Your task to perform on an android device: toggle notification dots Image 0: 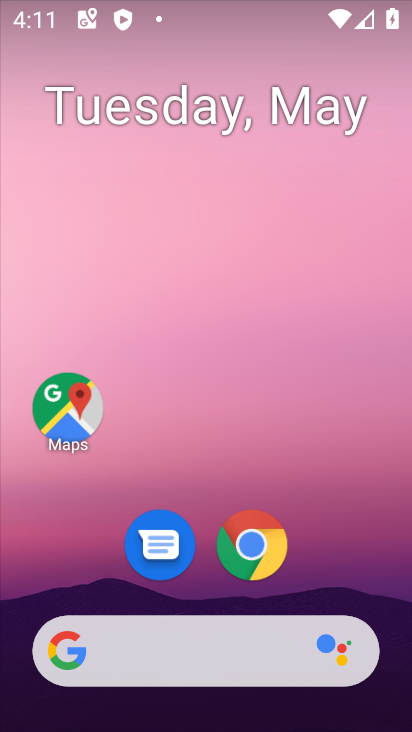
Step 0: drag from (329, 567) to (268, 160)
Your task to perform on an android device: toggle notification dots Image 1: 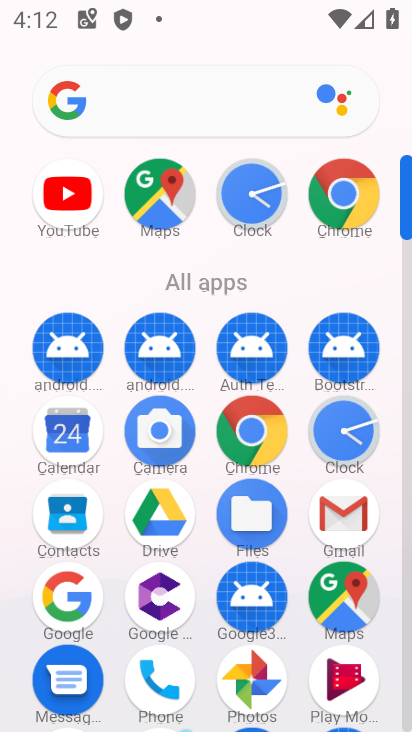
Step 1: drag from (297, 557) to (307, 286)
Your task to perform on an android device: toggle notification dots Image 2: 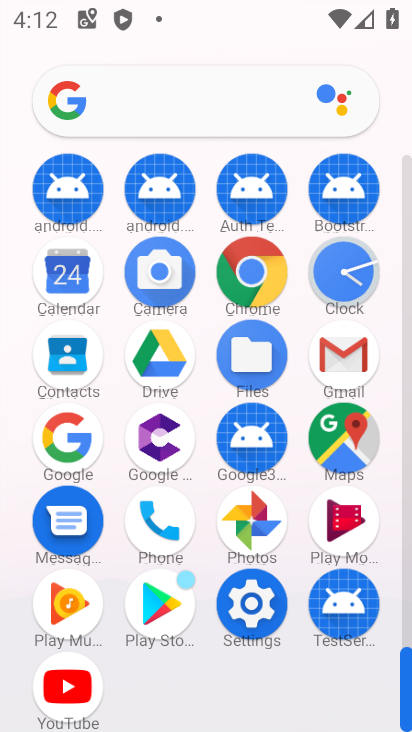
Step 2: click (251, 600)
Your task to perform on an android device: toggle notification dots Image 3: 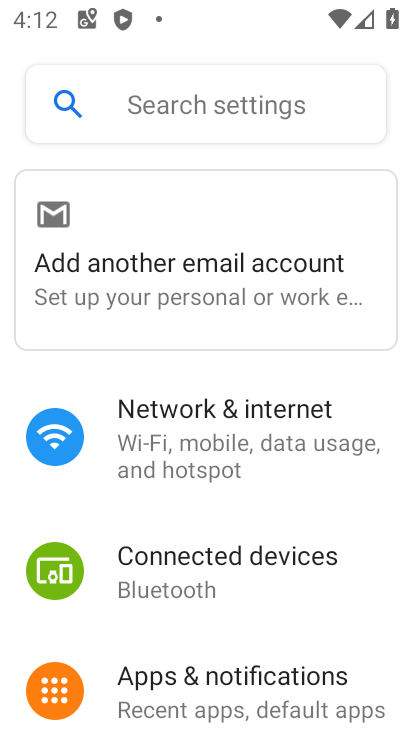
Step 3: click (231, 679)
Your task to perform on an android device: toggle notification dots Image 4: 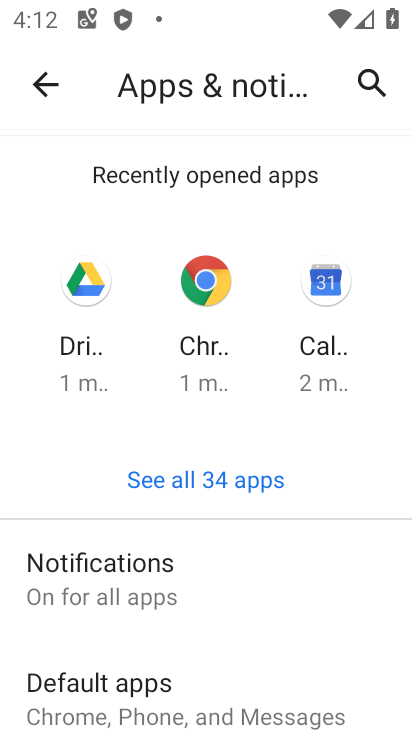
Step 4: click (118, 563)
Your task to perform on an android device: toggle notification dots Image 5: 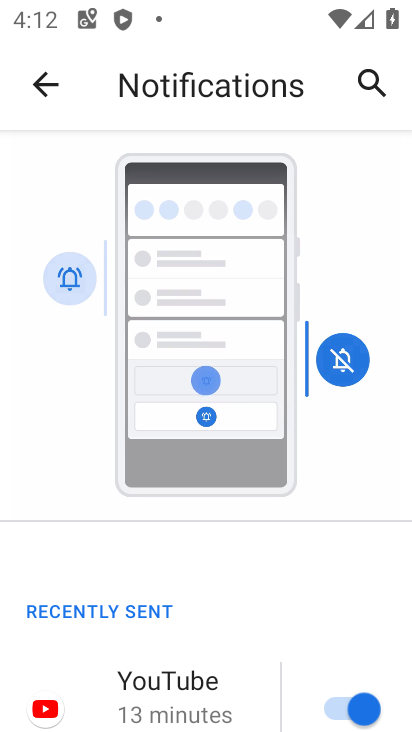
Step 5: drag from (210, 599) to (219, 332)
Your task to perform on an android device: toggle notification dots Image 6: 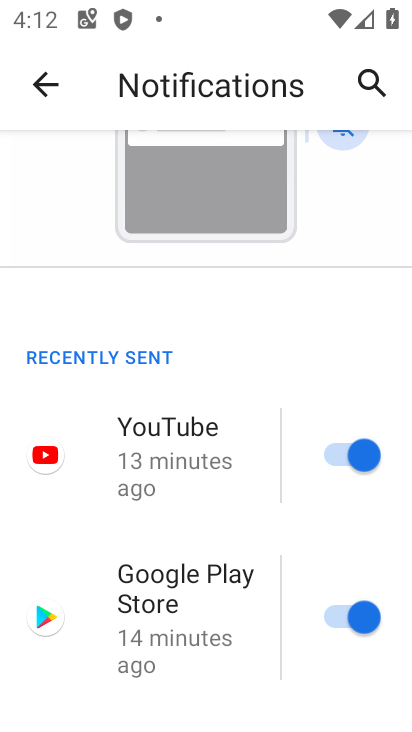
Step 6: drag from (188, 516) to (256, 317)
Your task to perform on an android device: toggle notification dots Image 7: 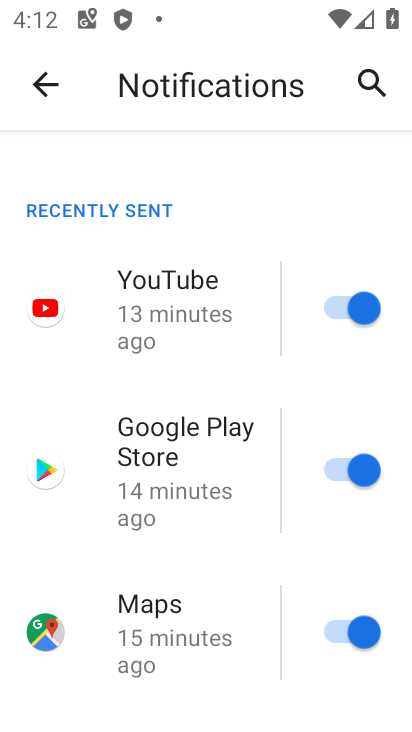
Step 7: drag from (157, 556) to (232, 348)
Your task to perform on an android device: toggle notification dots Image 8: 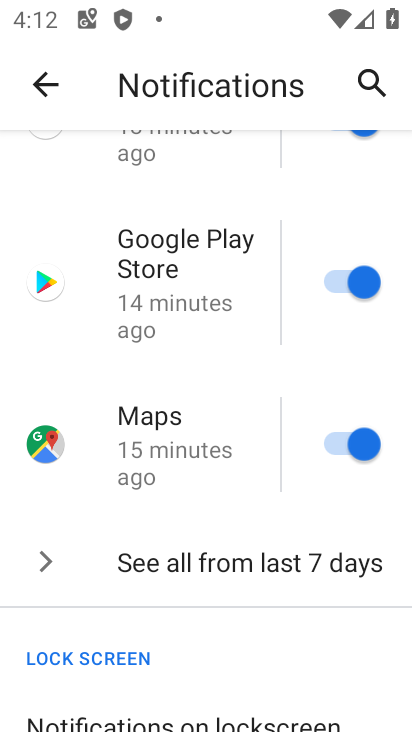
Step 8: drag from (165, 526) to (236, 332)
Your task to perform on an android device: toggle notification dots Image 9: 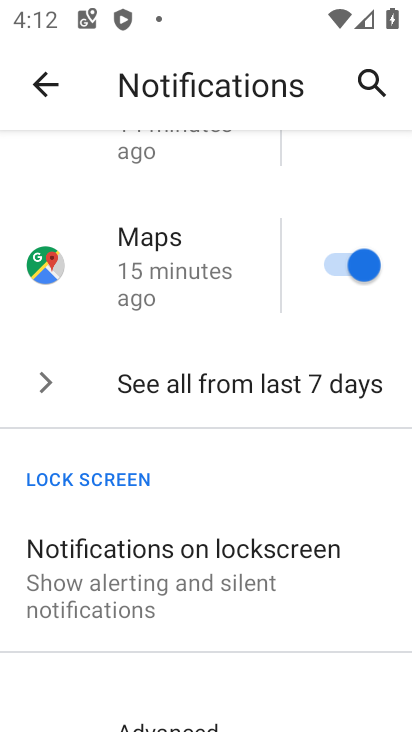
Step 9: drag from (183, 510) to (265, 336)
Your task to perform on an android device: toggle notification dots Image 10: 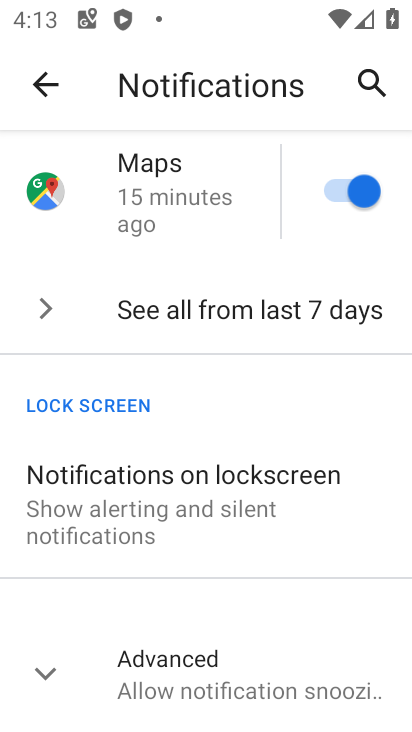
Step 10: click (221, 691)
Your task to perform on an android device: toggle notification dots Image 11: 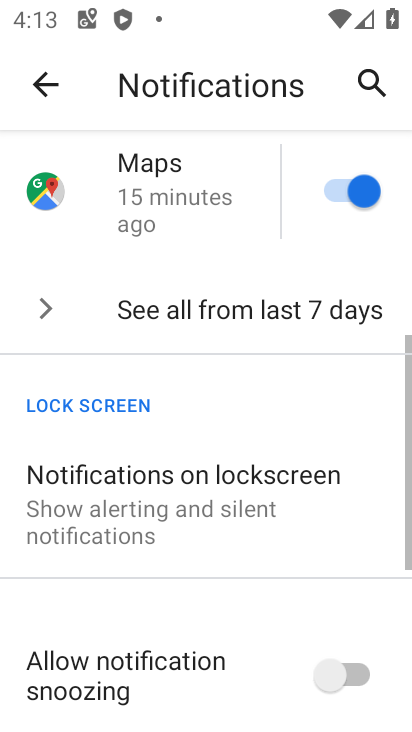
Step 11: drag from (237, 556) to (280, 400)
Your task to perform on an android device: toggle notification dots Image 12: 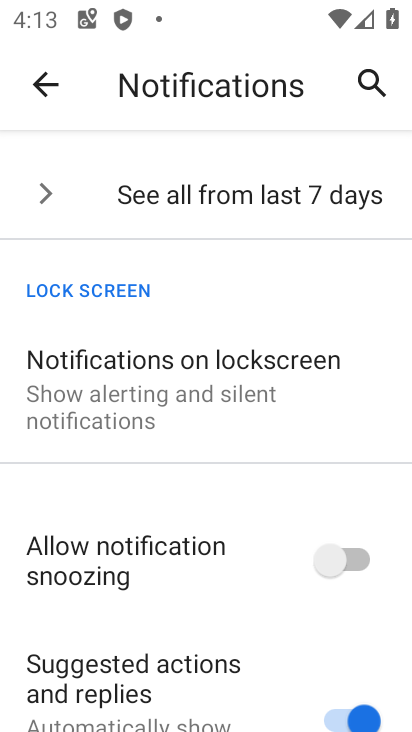
Step 12: drag from (181, 634) to (279, 449)
Your task to perform on an android device: toggle notification dots Image 13: 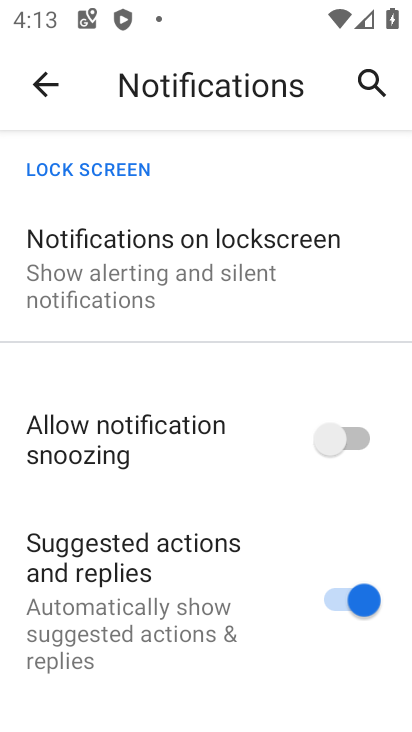
Step 13: drag from (163, 682) to (267, 443)
Your task to perform on an android device: toggle notification dots Image 14: 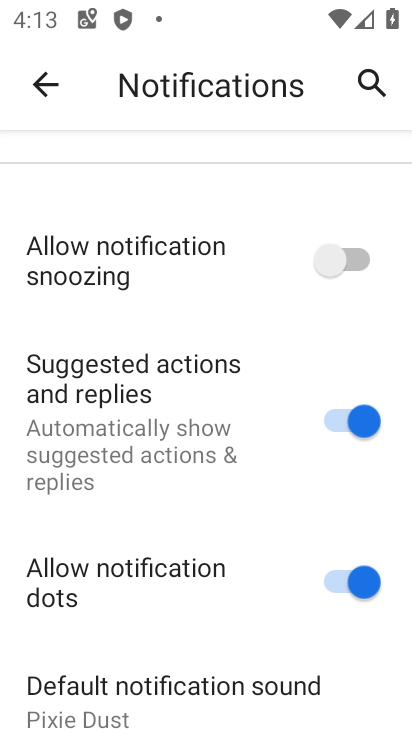
Step 14: click (359, 582)
Your task to perform on an android device: toggle notification dots Image 15: 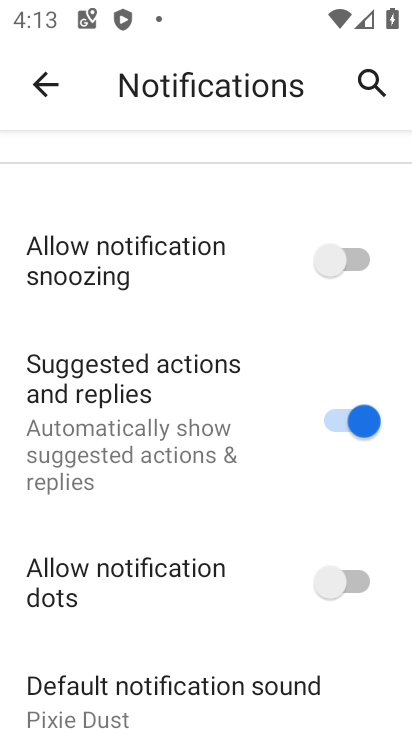
Step 15: task complete